Your task to perform on an android device: When is my next meeting? Image 0: 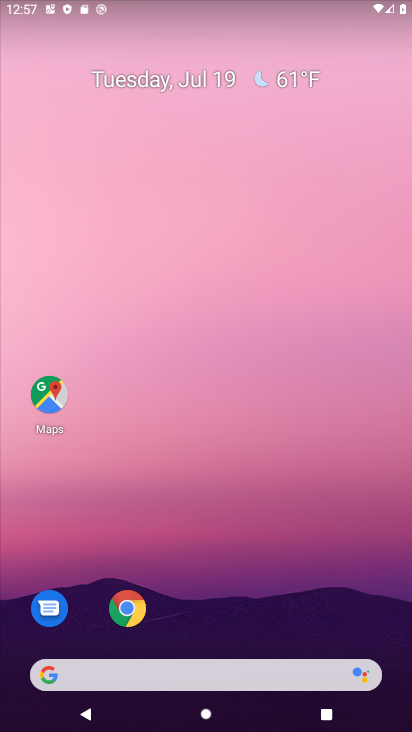
Step 0: drag from (271, 475) to (302, 60)
Your task to perform on an android device: When is my next meeting? Image 1: 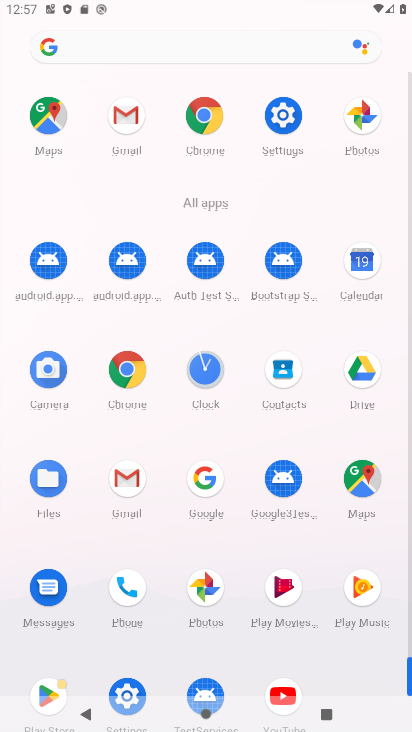
Step 1: click (349, 255)
Your task to perform on an android device: When is my next meeting? Image 2: 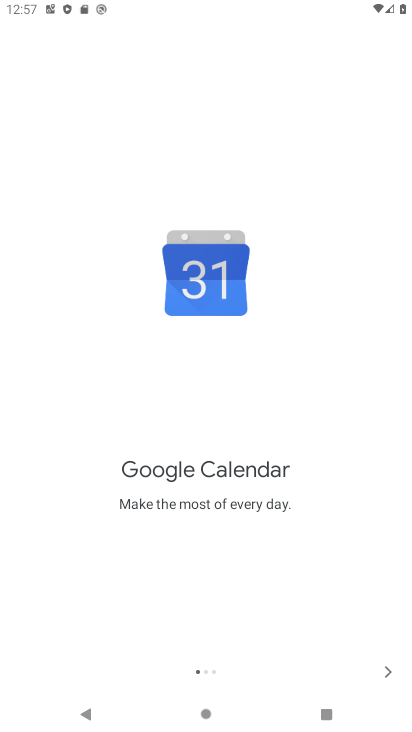
Step 2: click (385, 670)
Your task to perform on an android device: When is my next meeting? Image 3: 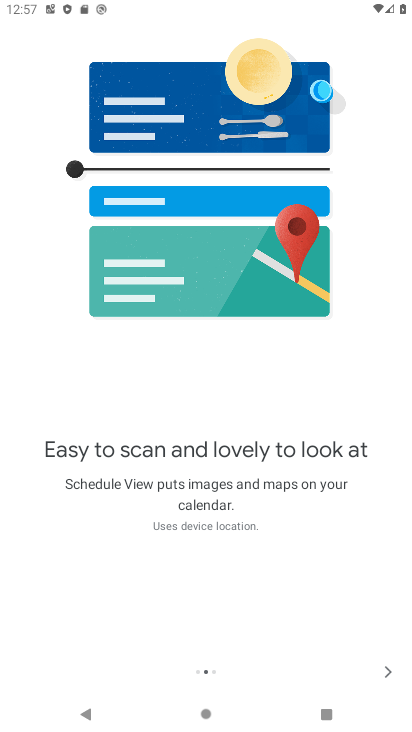
Step 3: click (385, 671)
Your task to perform on an android device: When is my next meeting? Image 4: 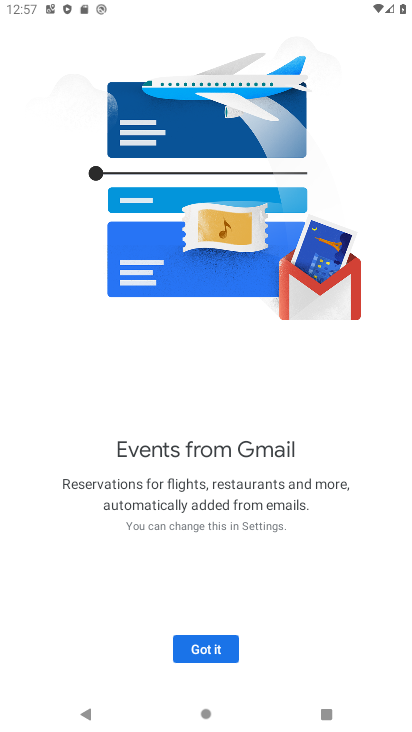
Step 4: click (202, 654)
Your task to perform on an android device: When is my next meeting? Image 5: 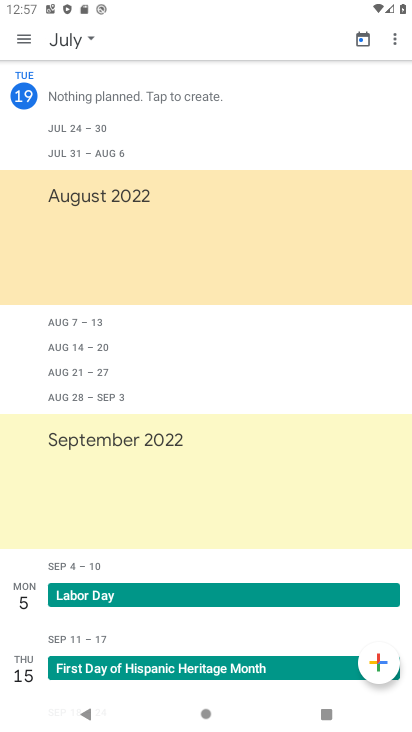
Step 5: task complete